Your task to perform on an android device: What is the recent news? Image 0: 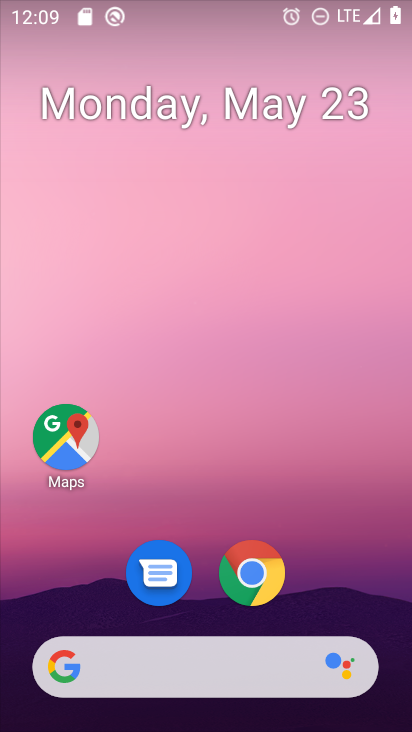
Step 0: click (159, 669)
Your task to perform on an android device: What is the recent news? Image 1: 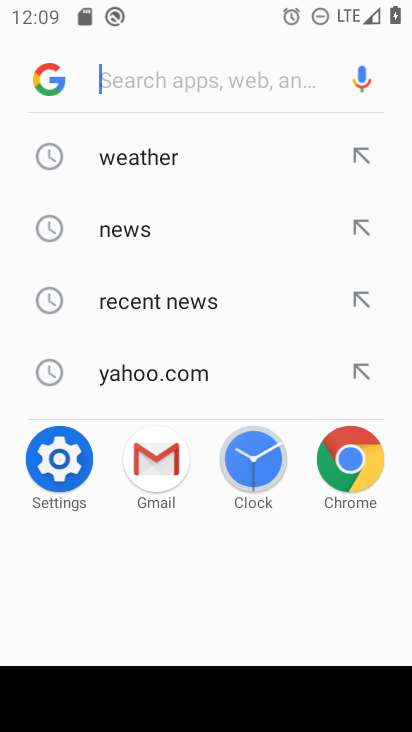
Step 1: type "what is the recent news"
Your task to perform on an android device: What is the recent news? Image 2: 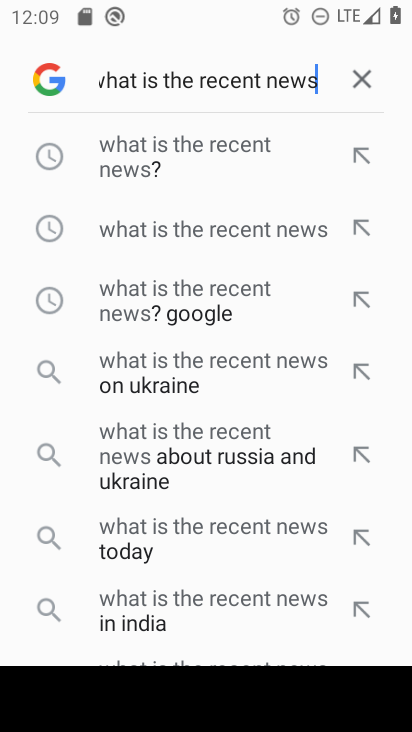
Step 2: click (177, 154)
Your task to perform on an android device: What is the recent news? Image 3: 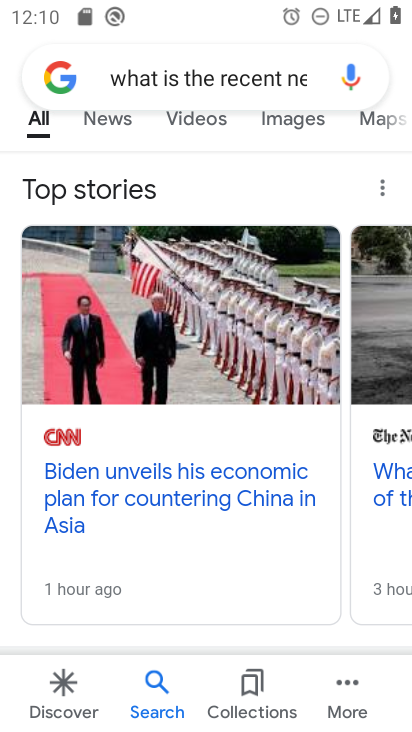
Step 3: click (119, 134)
Your task to perform on an android device: What is the recent news? Image 4: 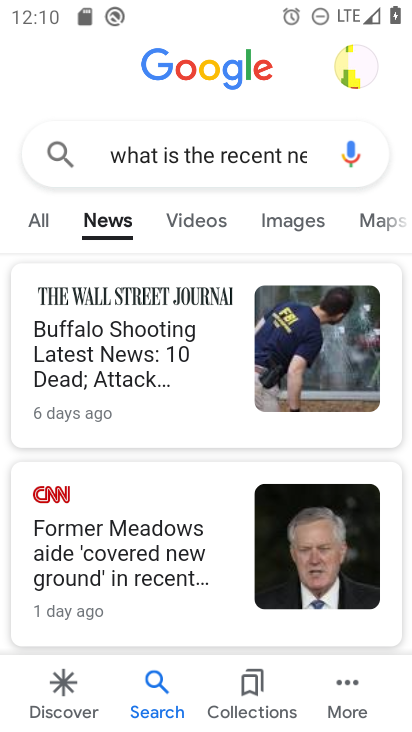
Step 4: task complete